Your task to perform on an android device: Go to display settings Image 0: 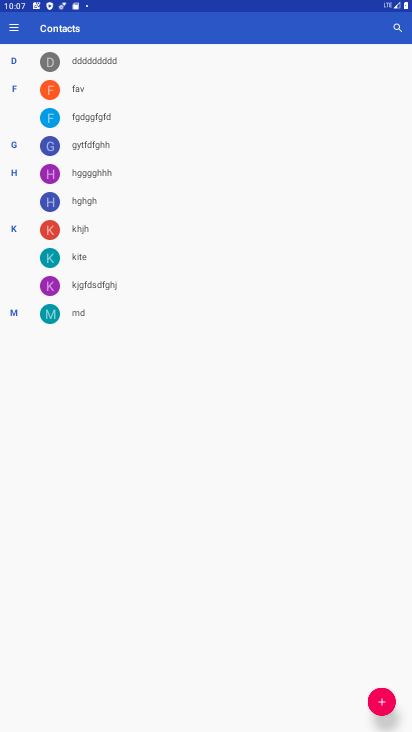
Step 0: press home button
Your task to perform on an android device: Go to display settings Image 1: 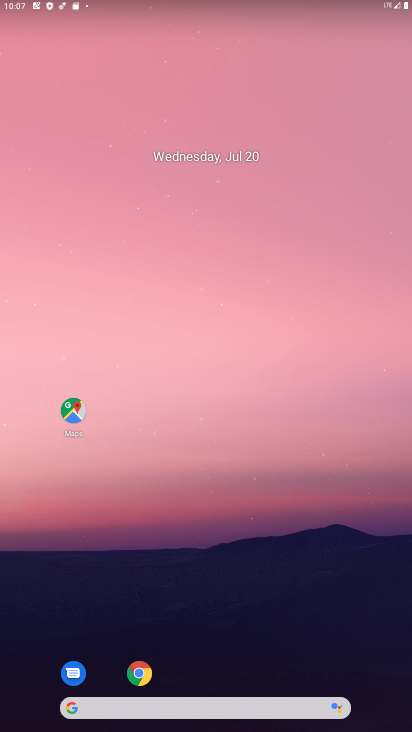
Step 1: drag from (199, 710) to (205, 112)
Your task to perform on an android device: Go to display settings Image 2: 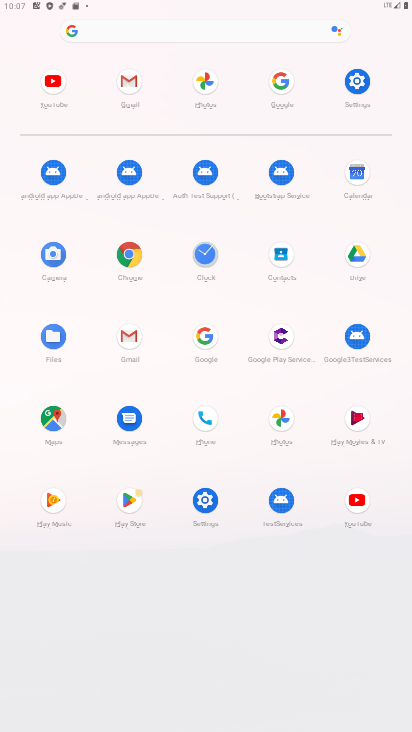
Step 2: click (358, 81)
Your task to perform on an android device: Go to display settings Image 3: 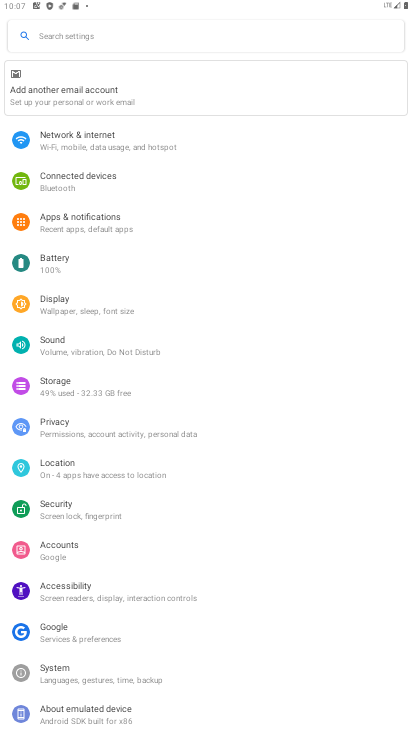
Step 3: click (69, 313)
Your task to perform on an android device: Go to display settings Image 4: 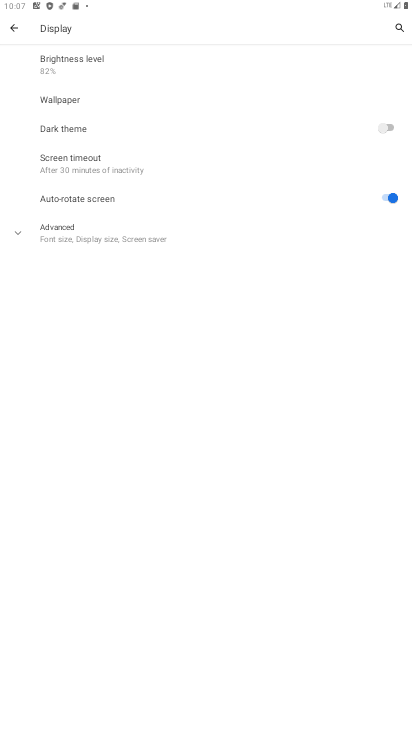
Step 4: task complete